Your task to perform on an android device: Check the news Image 0: 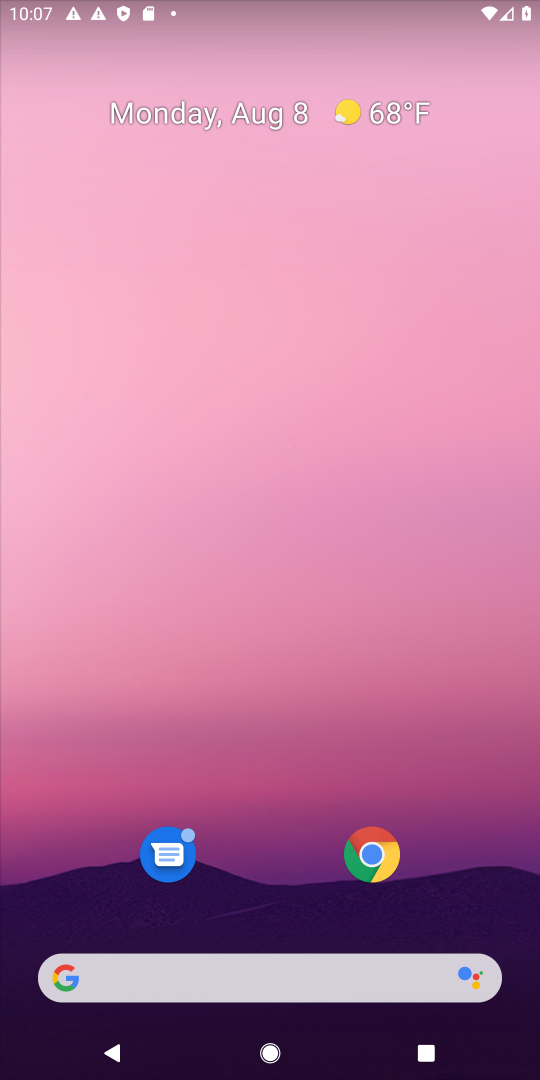
Step 0: press home button
Your task to perform on an android device: Check the news Image 1: 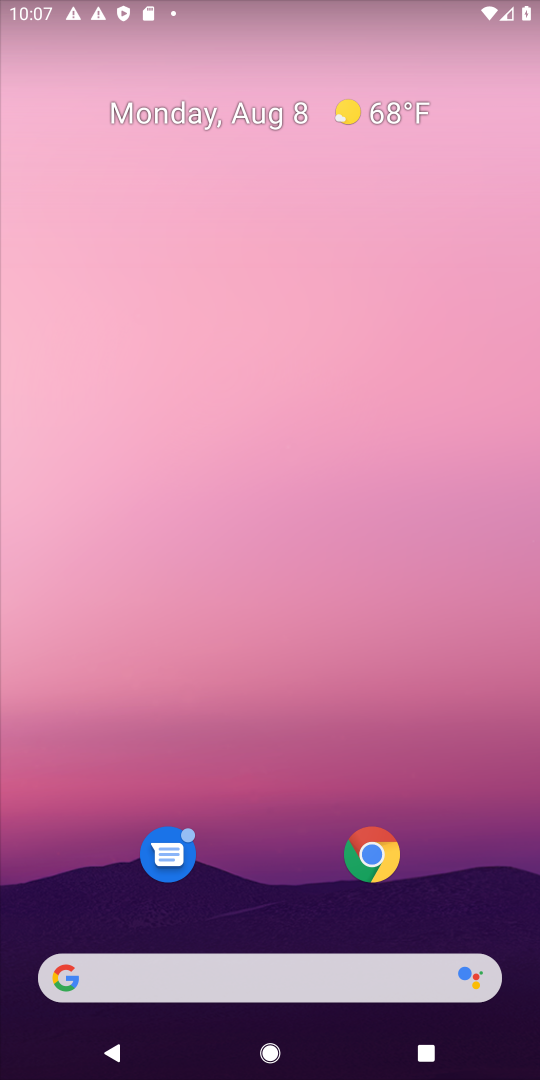
Step 1: click (353, 976)
Your task to perform on an android device: Check the news Image 2: 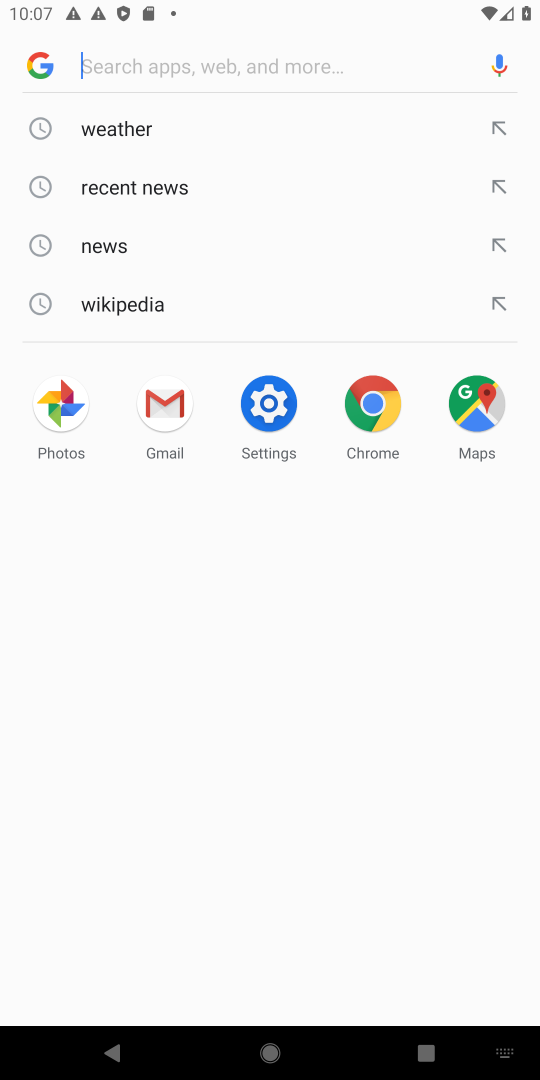
Step 2: type "Check the news"
Your task to perform on an android device: Check the news Image 3: 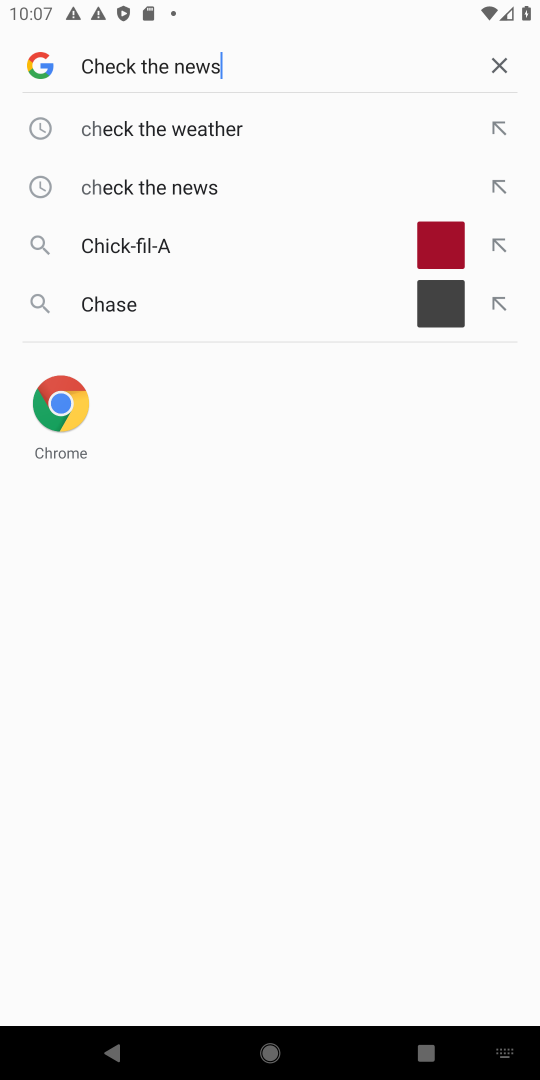
Step 3: press enter
Your task to perform on an android device: Check the news Image 4: 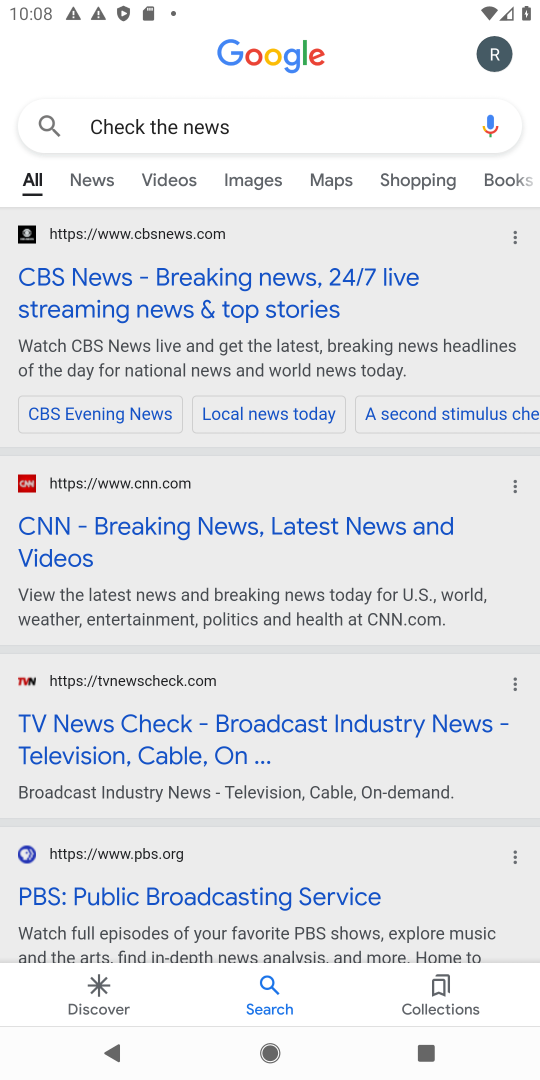
Step 4: task complete